Your task to perform on an android device: Go to location settings Image 0: 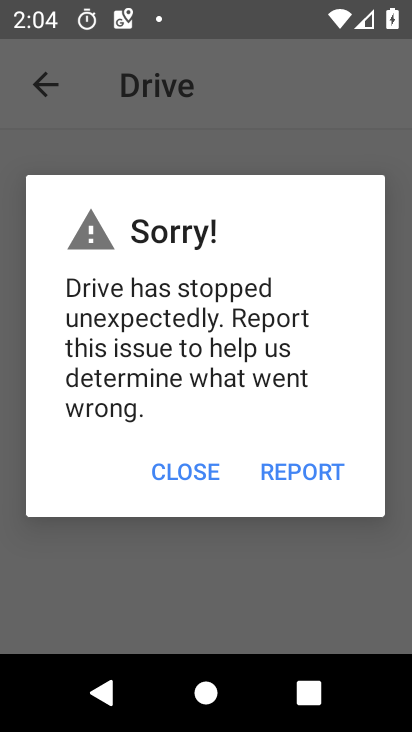
Step 0: press home button
Your task to perform on an android device: Go to location settings Image 1: 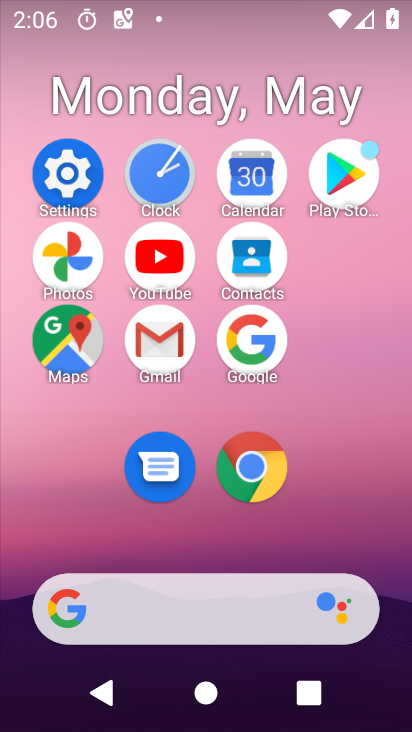
Step 1: click (76, 184)
Your task to perform on an android device: Go to location settings Image 2: 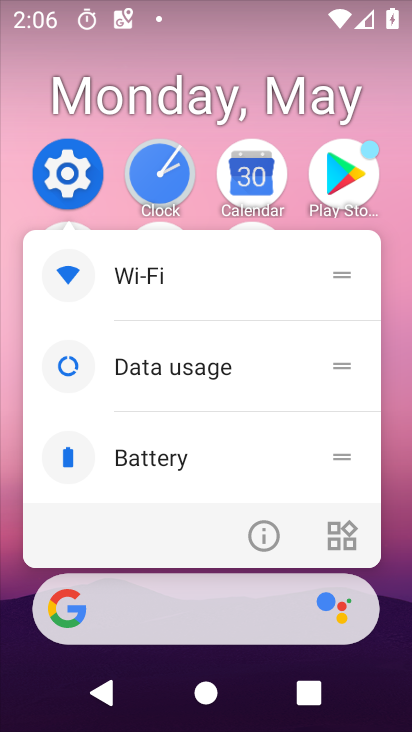
Step 2: click (71, 196)
Your task to perform on an android device: Go to location settings Image 3: 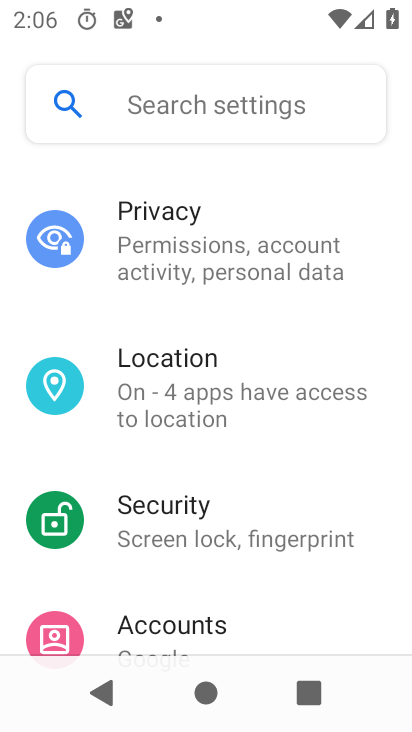
Step 3: click (220, 413)
Your task to perform on an android device: Go to location settings Image 4: 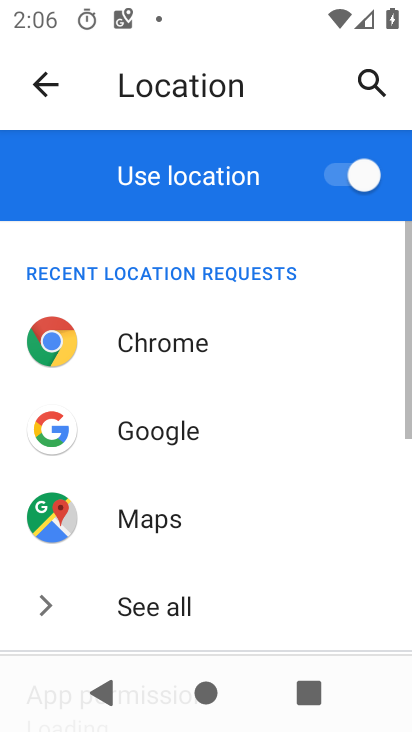
Step 4: task complete